Your task to perform on an android device: What's the weather today? Image 0: 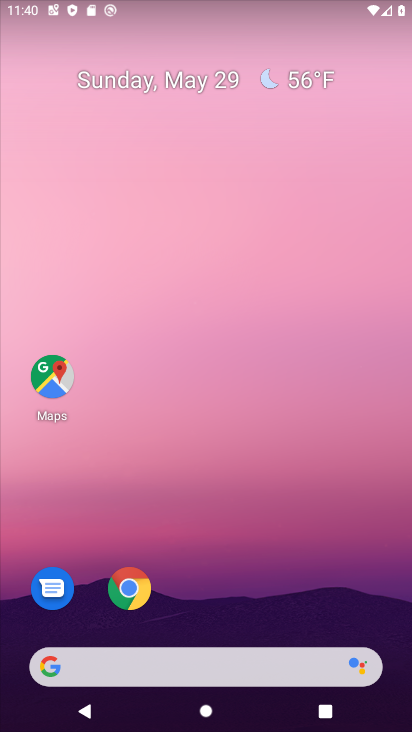
Step 0: click (282, 108)
Your task to perform on an android device: What's the weather today? Image 1: 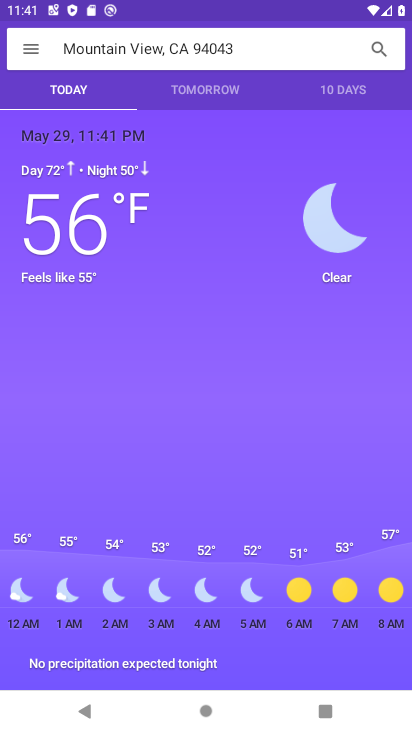
Step 1: task complete